Your task to perform on an android device: all mails in gmail Image 0: 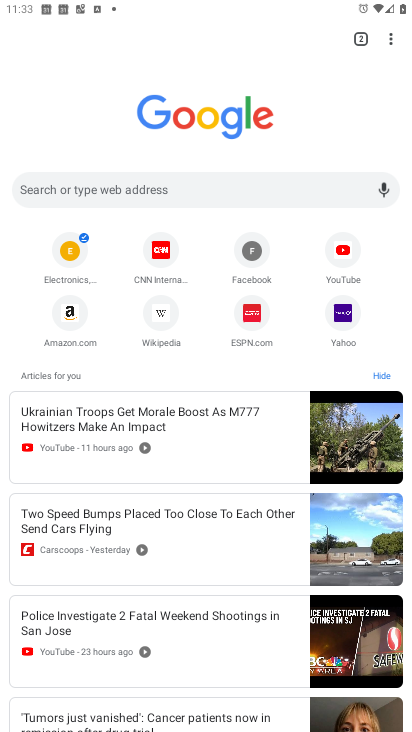
Step 0: press home button
Your task to perform on an android device: all mails in gmail Image 1: 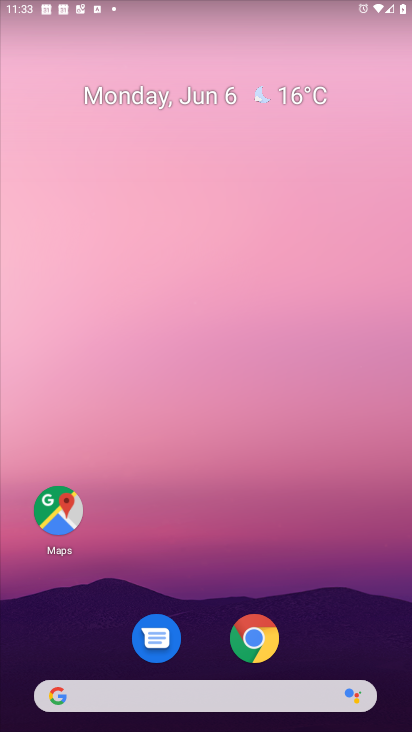
Step 1: drag from (186, 702) to (204, 164)
Your task to perform on an android device: all mails in gmail Image 2: 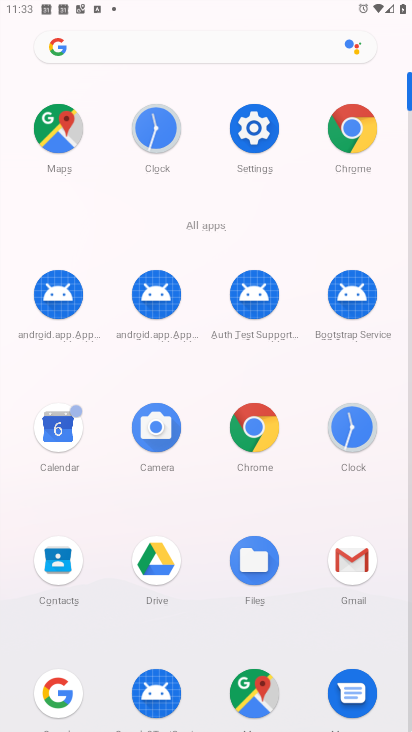
Step 2: click (355, 570)
Your task to perform on an android device: all mails in gmail Image 3: 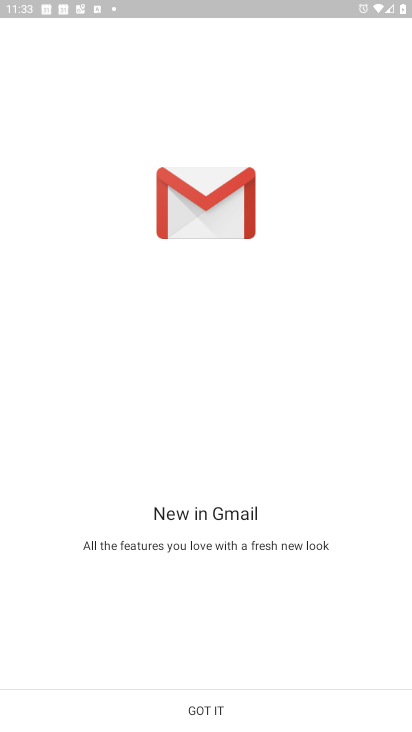
Step 3: click (185, 711)
Your task to perform on an android device: all mails in gmail Image 4: 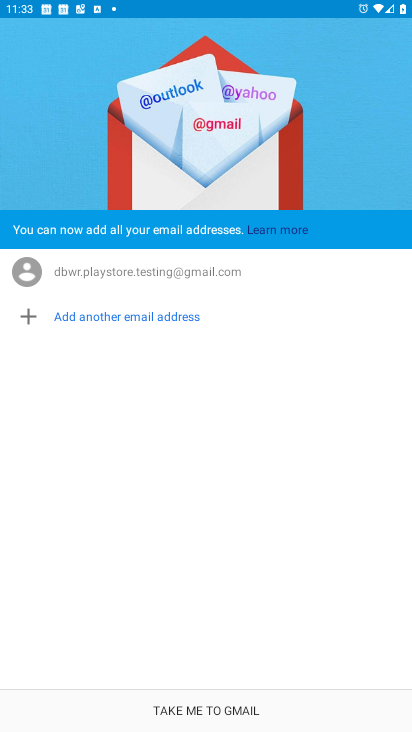
Step 4: click (200, 718)
Your task to perform on an android device: all mails in gmail Image 5: 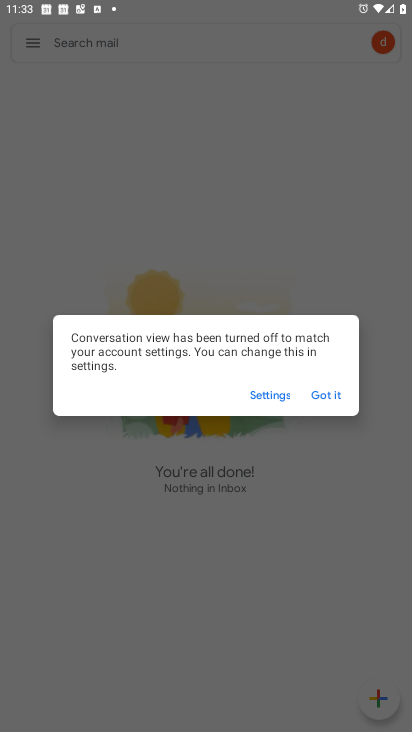
Step 5: click (319, 386)
Your task to perform on an android device: all mails in gmail Image 6: 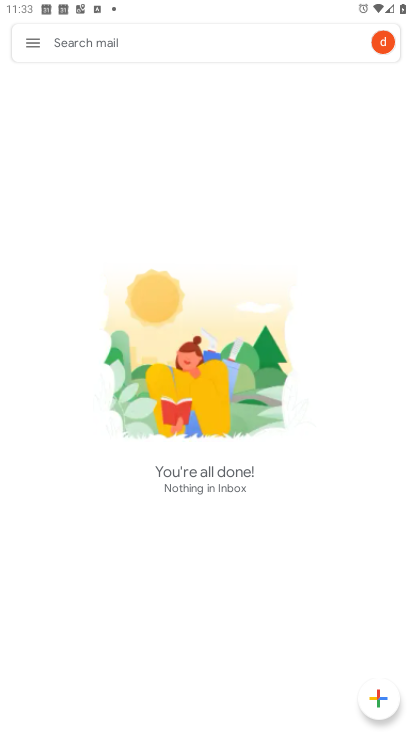
Step 6: click (21, 35)
Your task to perform on an android device: all mails in gmail Image 7: 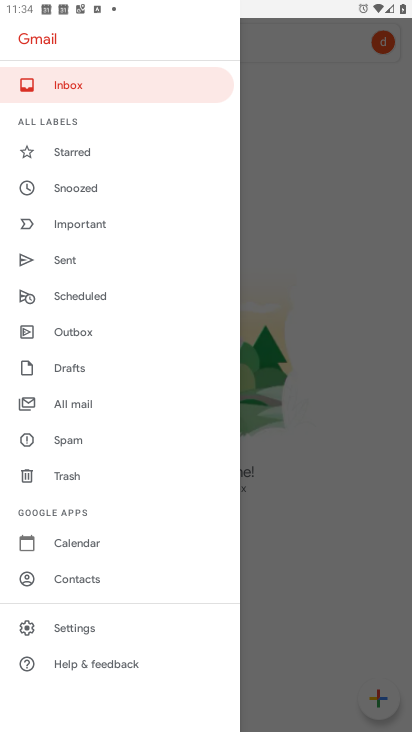
Step 7: click (86, 408)
Your task to perform on an android device: all mails in gmail Image 8: 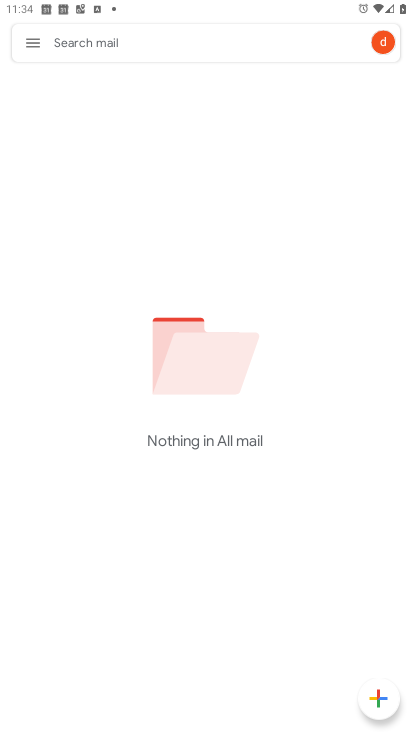
Step 8: task complete